Your task to perform on an android device: Open the Play Movies app and select the watchlist tab. Image 0: 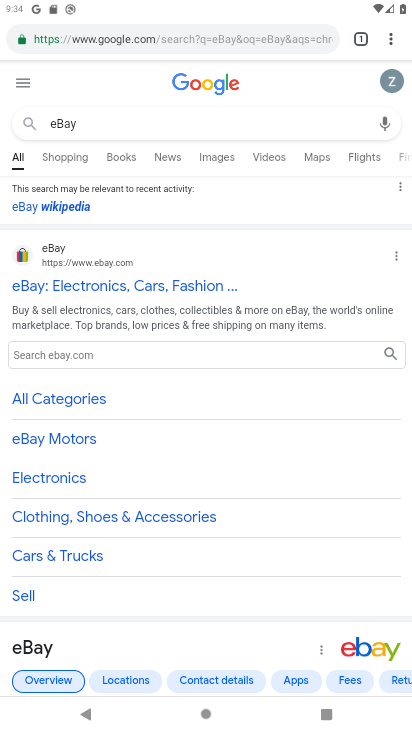
Step 0: press home button
Your task to perform on an android device: Open the Play Movies app and select the watchlist tab. Image 1: 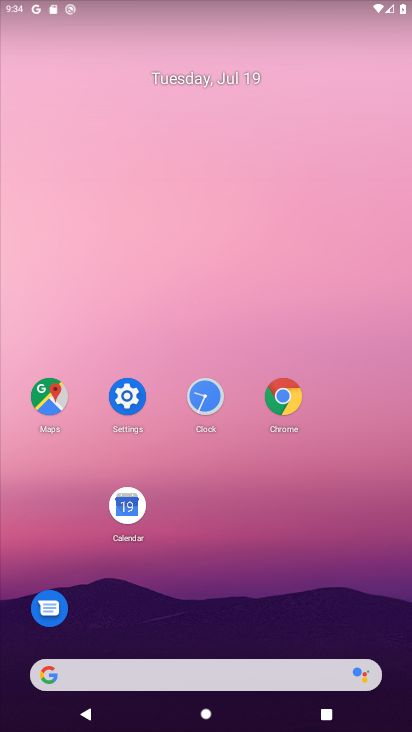
Step 1: drag from (392, 702) to (276, 31)
Your task to perform on an android device: Open the Play Movies app and select the watchlist tab. Image 2: 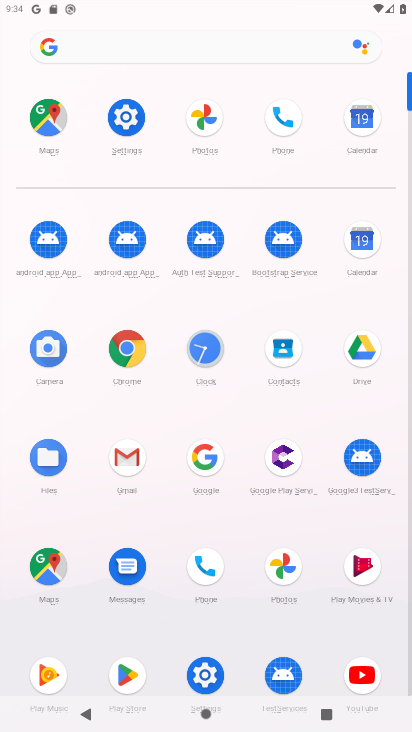
Step 2: click (358, 571)
Your task to perform on an android device: Open the Play Movies app and select the watchlist tab. Image 3: 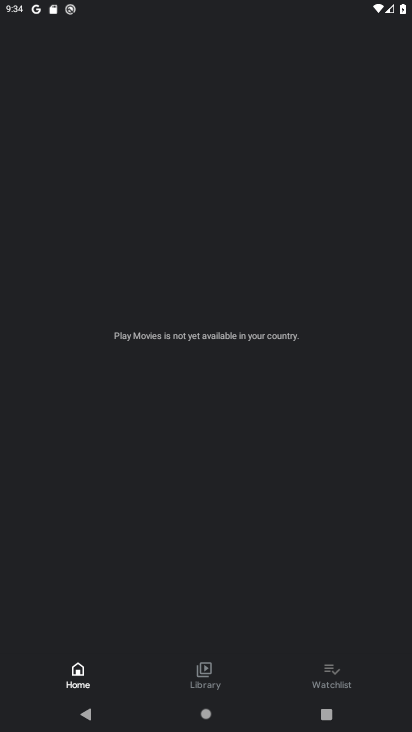
Step 3: click (320, 679)
Your task to perform on an android device: Open the Play Movies app and select the watchlist tab. Image 4: 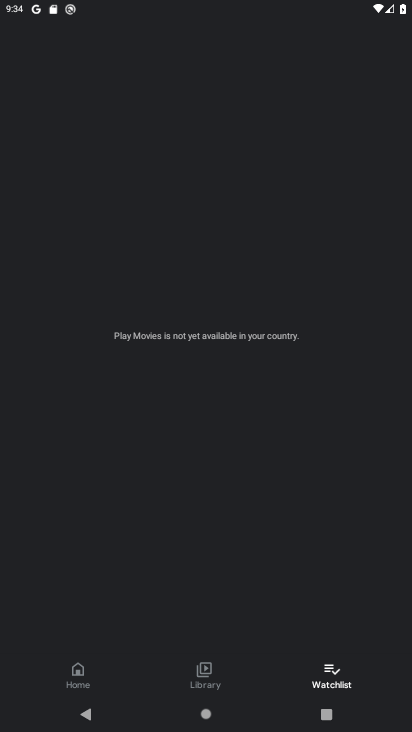
Step 4: task complete